Your task to perform on an android device: What is the capital of Canada? Image 0: 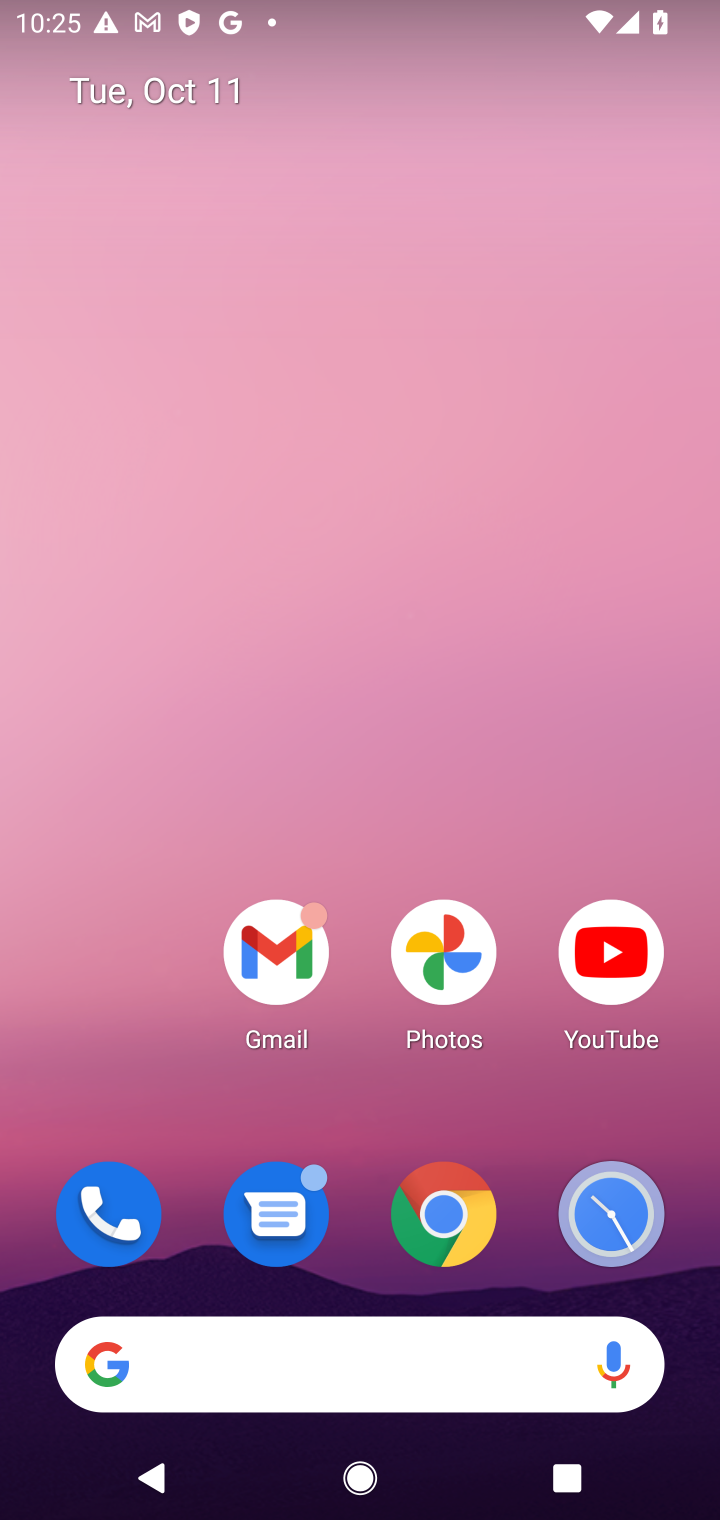
Step 0: drag from (540, 1135) to (386, 81)
Your task to perform on an android device: What is the capital of Canada? Image 1: 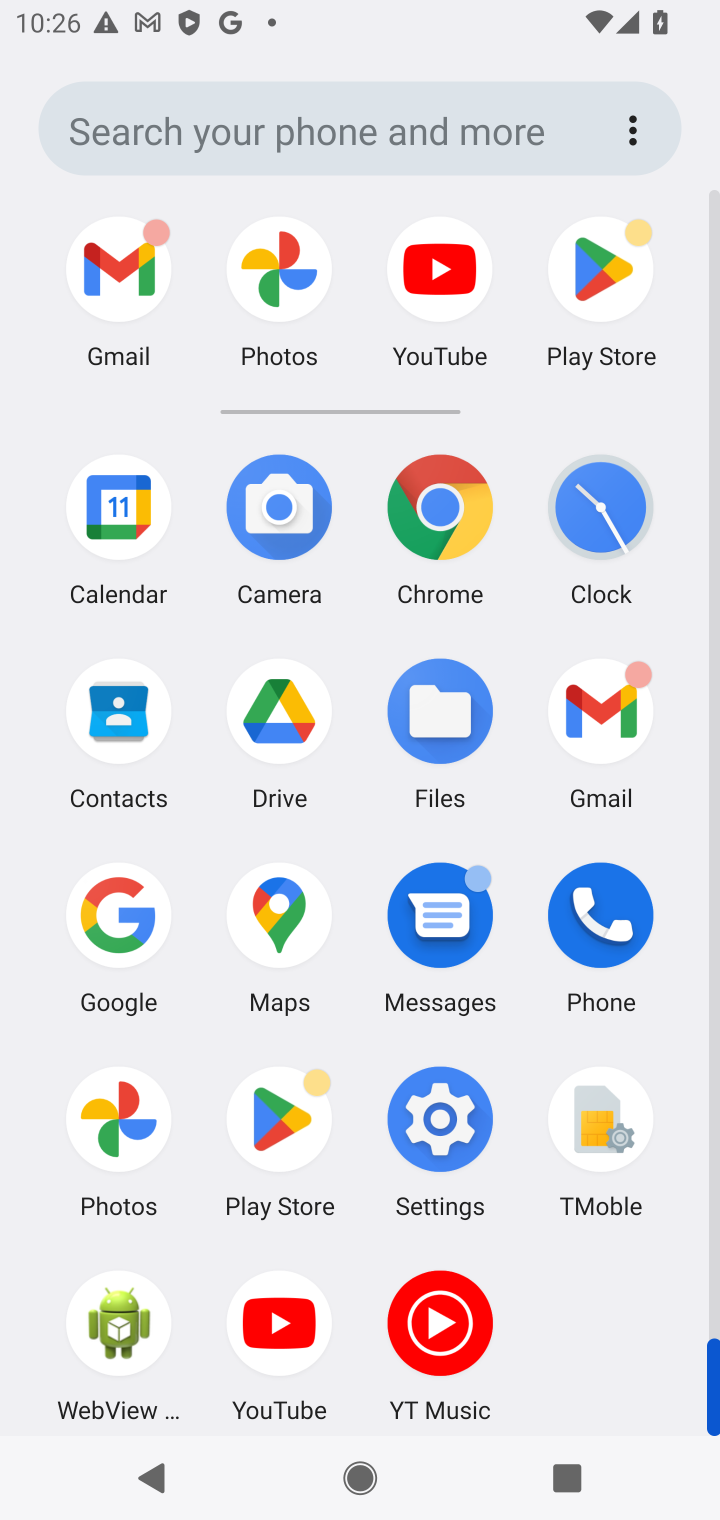
Step 1: click (447, 512)
Your task to perform on an android device: What is the capital of Canada? Image 2: 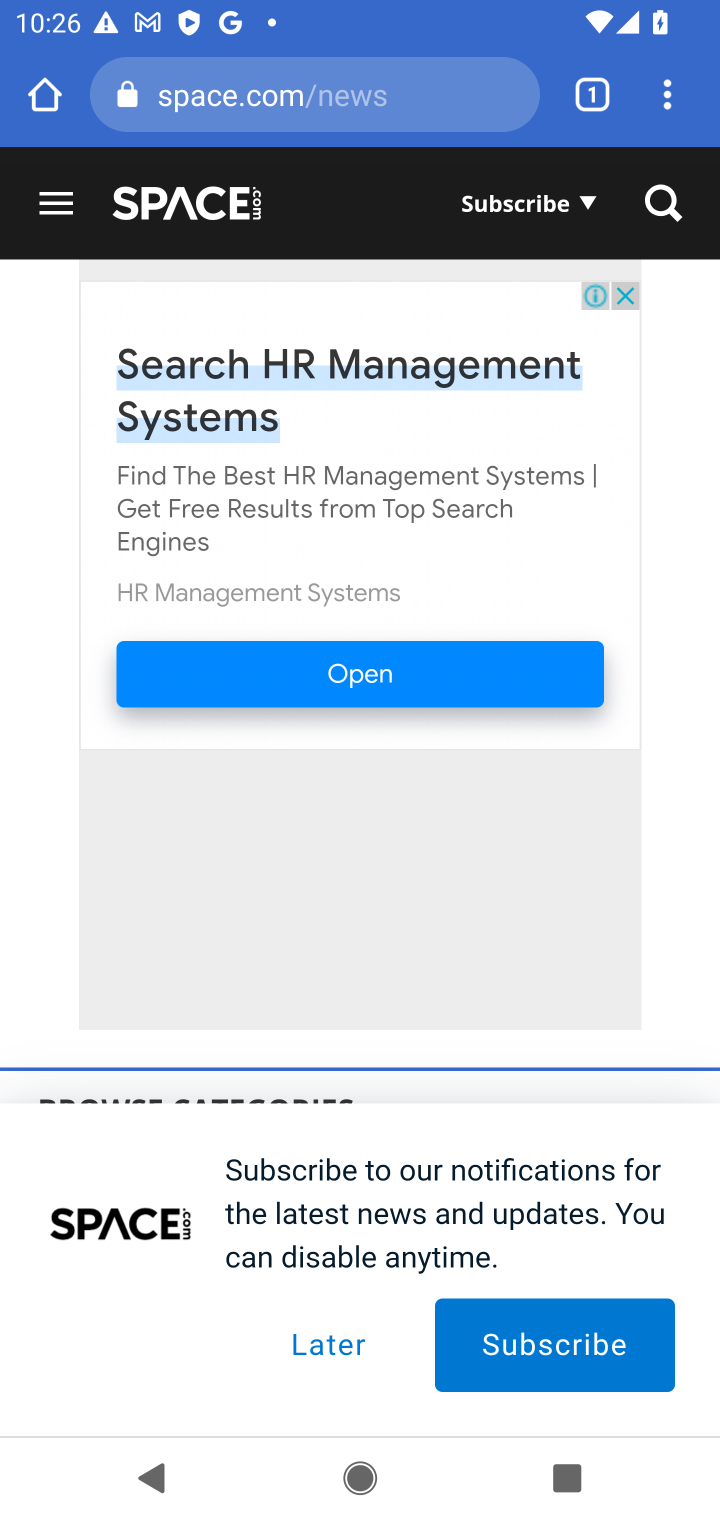
Step 2: click (413, 95)
Your task to perform on an android device: What is the capital of Canada? Image 3: 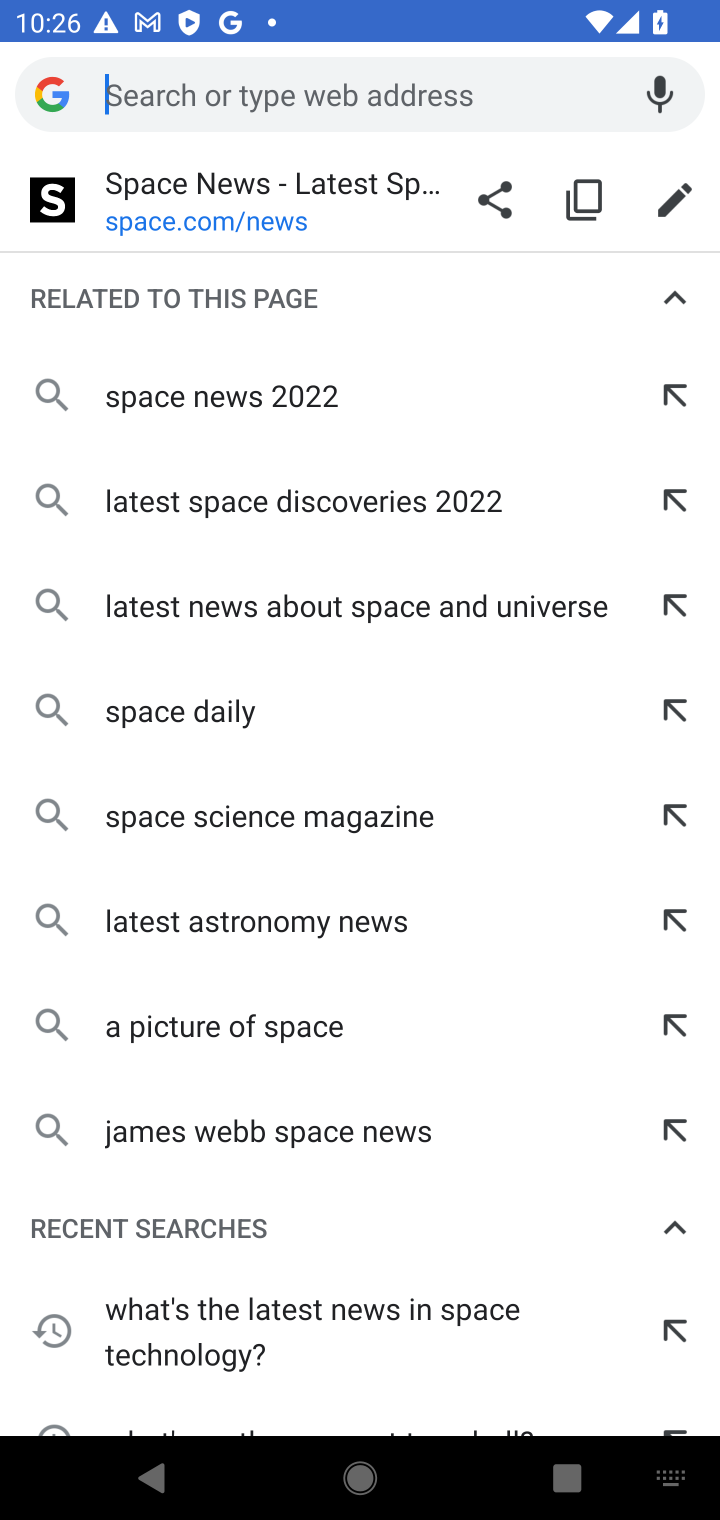
Step 3: type "what is the capital of Canada?"
Your task to perform on an android device: What is the capital of Canada? Image 4: 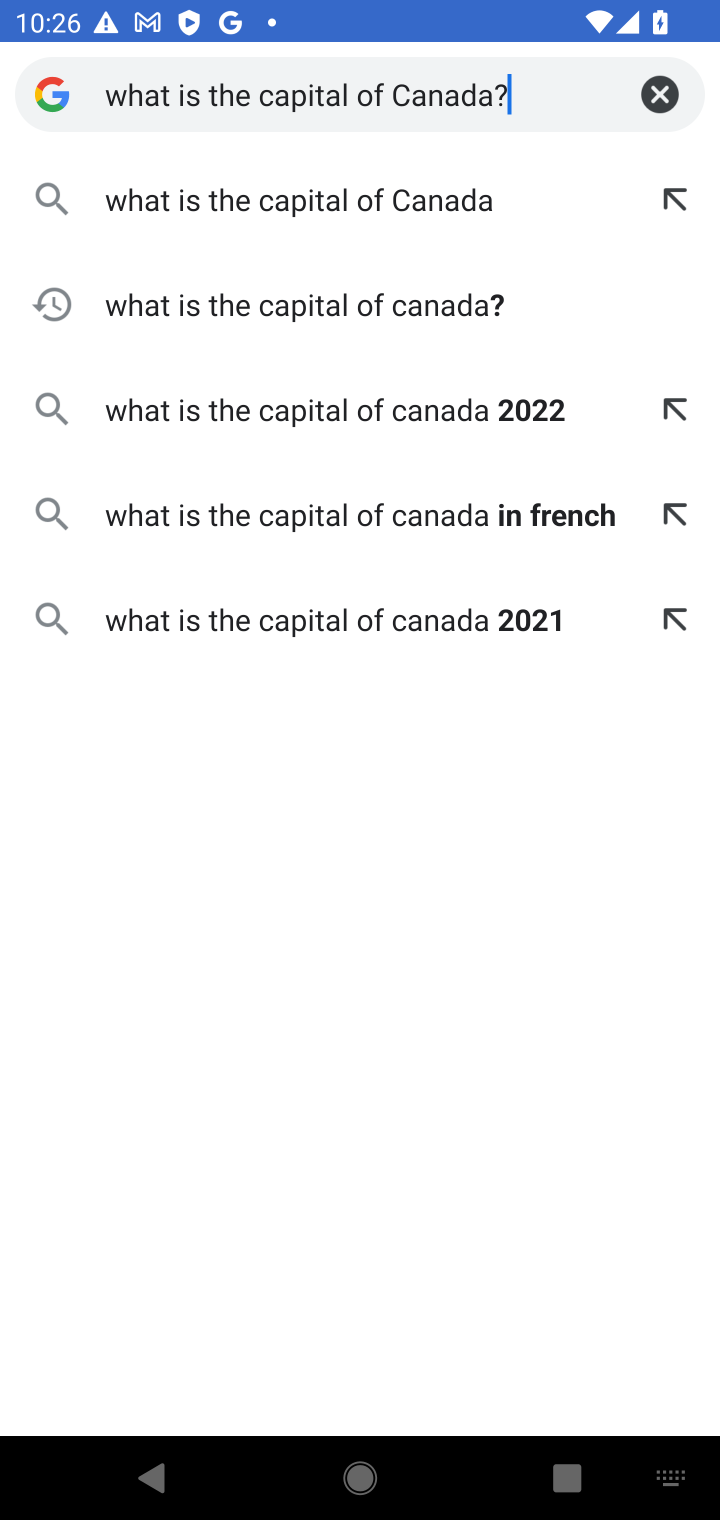
Step 4: press enter
Your task to perform on an android device: What is the capital of Canada? Image 5: 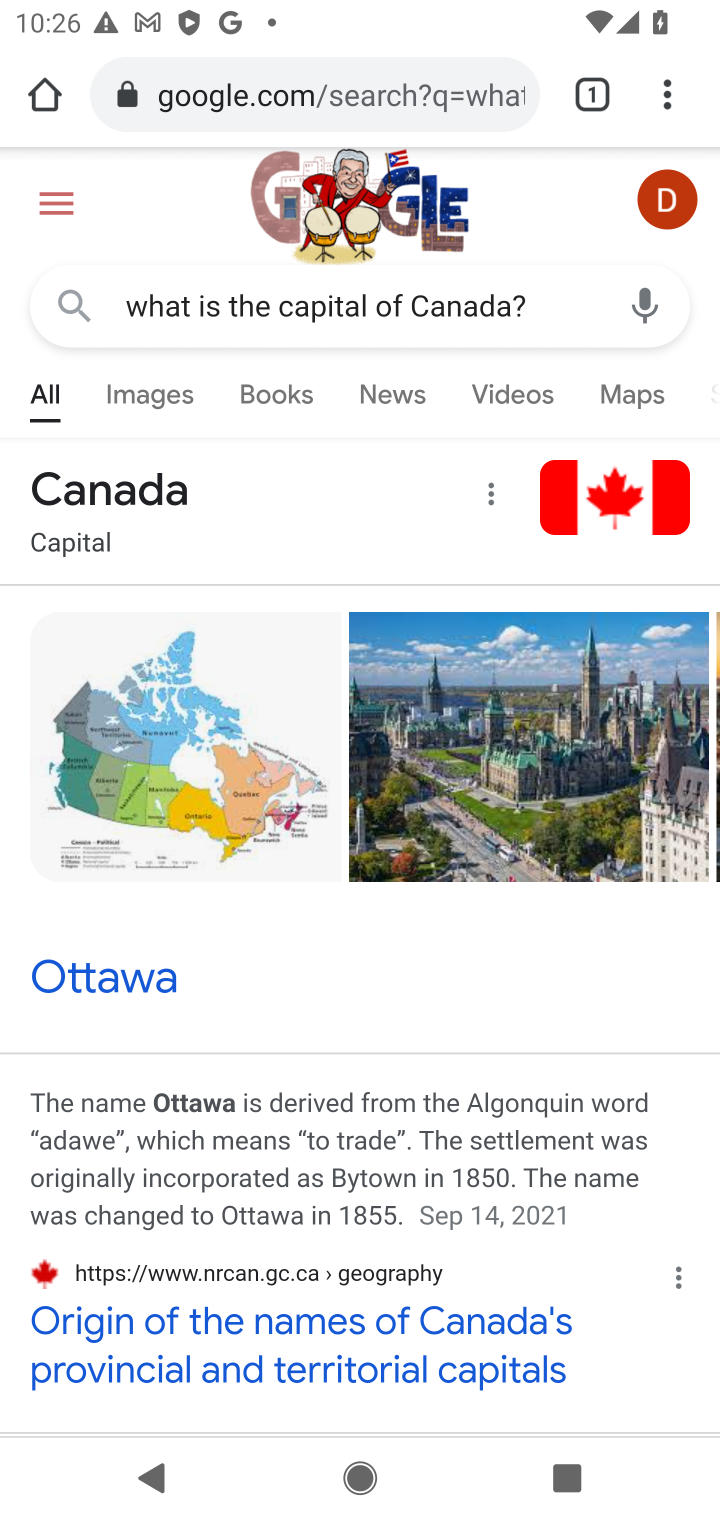
Step 5: task complete